Your task to perform on an android device: Open Google Chrome and click the shortcut for Amazon.com Image 0: 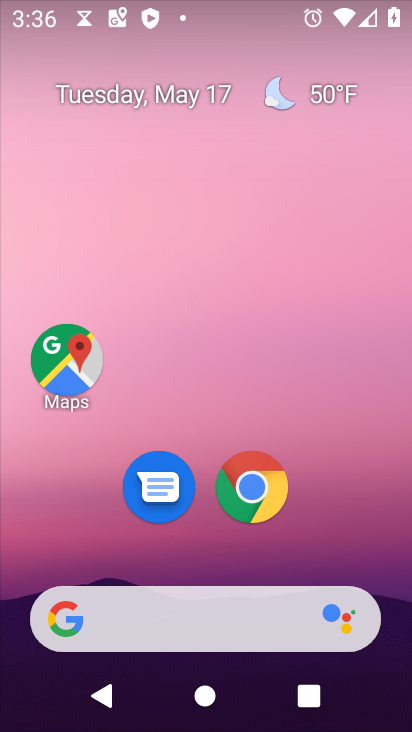
Step 0: click (251, 488)
Your task to perform on an android device: Open Google Chrome and click the shortcut for Amazon.com Image 1: 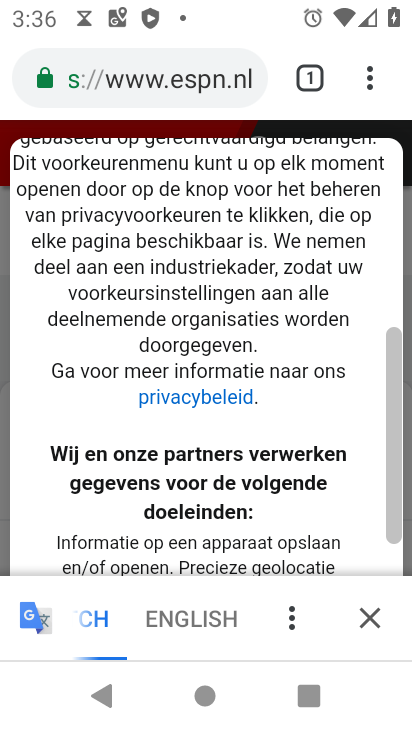
Step 1: click (363, 87)
Your task to perform on an android device: Open Google Chrome and click the shortcut for Amazon.com Image 2: 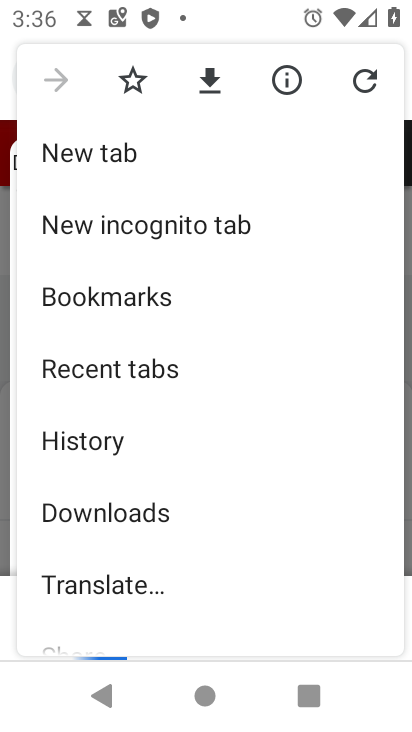
Step 2: click (68, 152)
Your task to perform on an android device: Open Google Chrome and click the shortcut for Amazon.com Image 3: 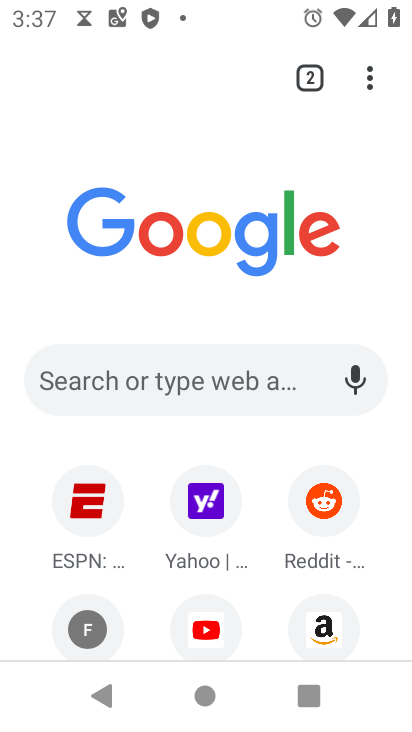
Step 3: click (319, 620)
Your task to perform on an android device: Open Google Chrome and click the shortcut for Amazon.com Image 4: 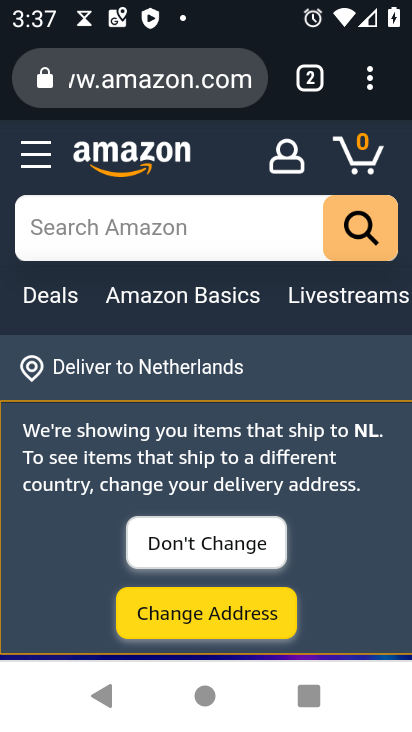
Step 4: task complete